Your task to perform on an android device: Open the phone app and click the voicemail tab. Image 0: 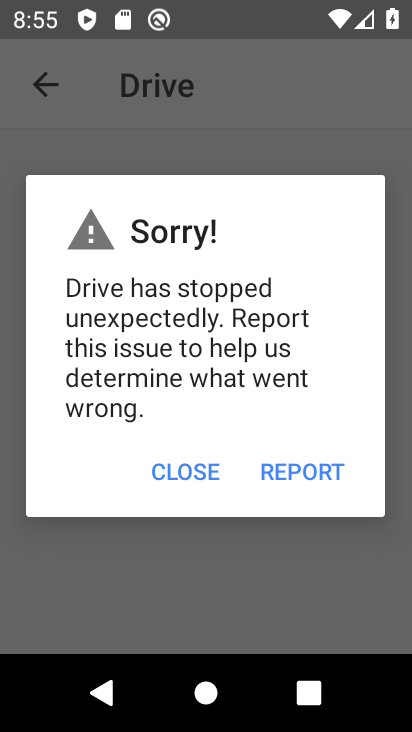
Step 0: press home button
Your task to perform on an android device: Open the phone app and click the voicemail tab. Image 1: 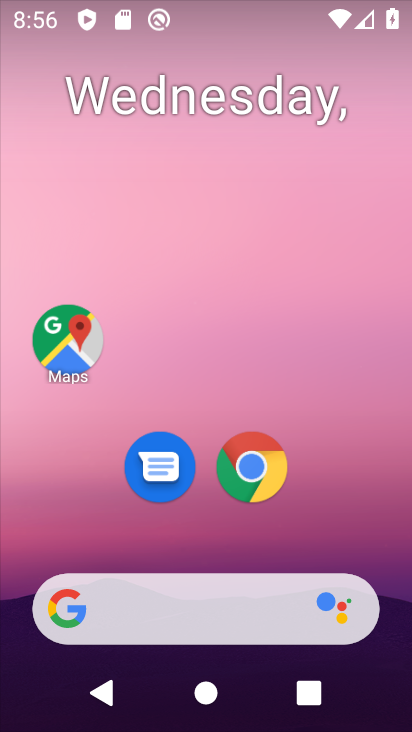
Step 1: drag from (363, 521) to (322, 0)
Your task to perform on an android device: Open the phone app and click the voicemail tab. Image 2: 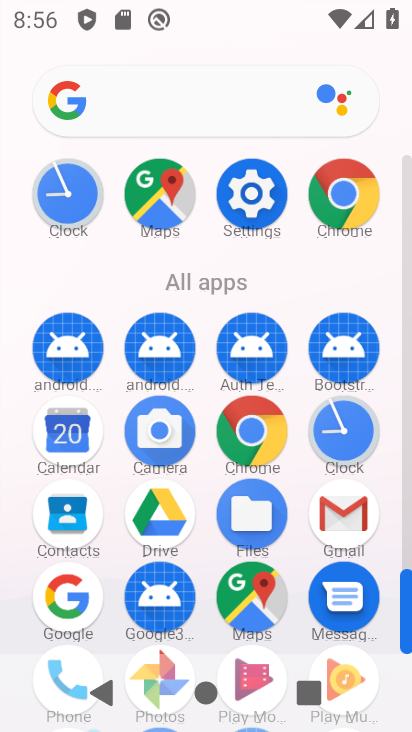
Step 2: drag from (204, 515) to (232, 274)
Your task to perform on an android device: Open the phone app and click the voicemail tab. Image 3: 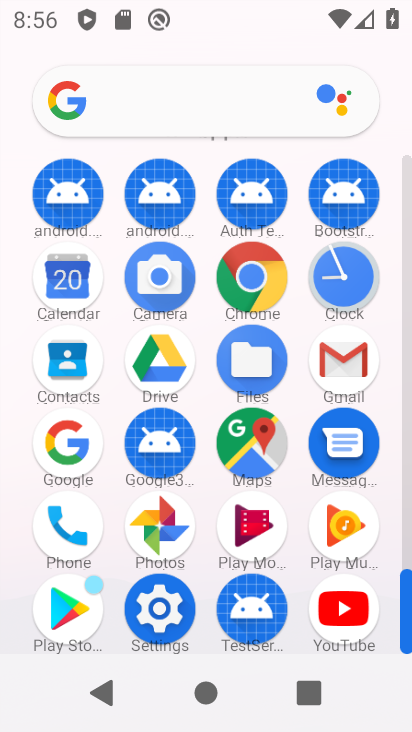
Step 3: click (62, 522)
Your task to perform on an android device: Open the phone app and click the voicemail tab. Image 4: 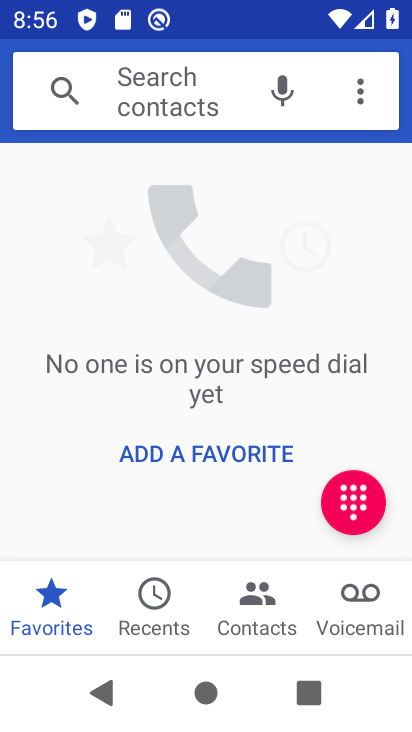
Step 4: click (356, 578)
Your task to perform on an android device: Open the phone app and click the voicemail tab. Image 5: 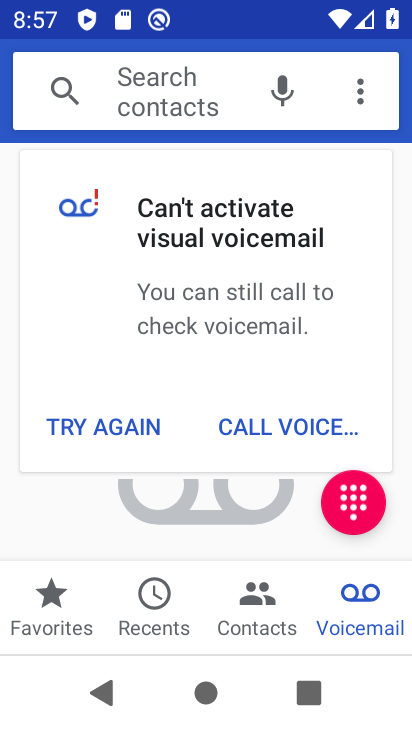
Step 5: task complete